Your task to perform on an android device: Open the phone app and click the voicemail tab. Image 0: 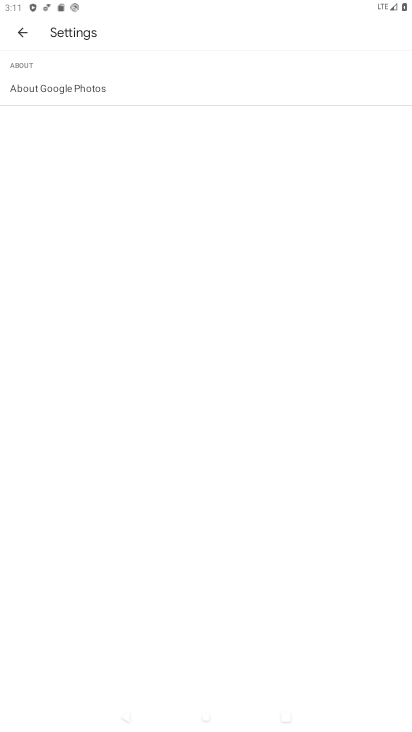
Step 0: press home button
Your task to perform on an android device: Open the phone app and click the voicemail tab. Image 1: 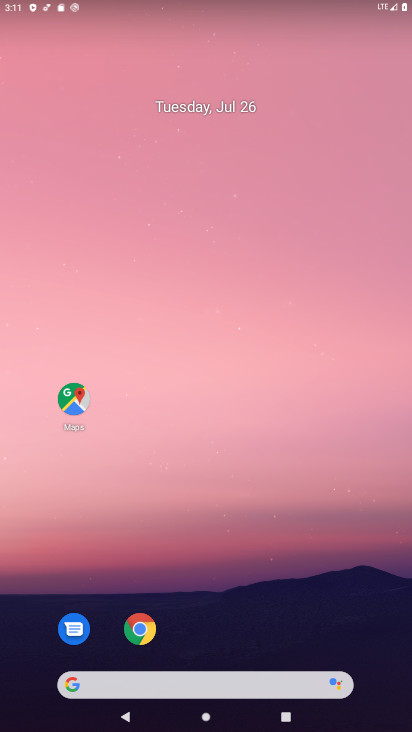
Step 1: drag from (225, 719) to (225, 240)
Your task to perform on an android device: Open the phone app and click the voicemail tab. Image 2: 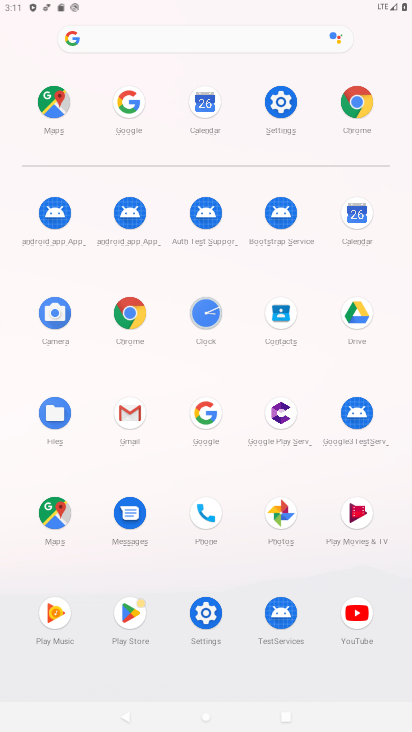
Step 2: click (203, 516)
Your task to perform on an android device: Open the phone app and click the voicemail tab. Image 3: 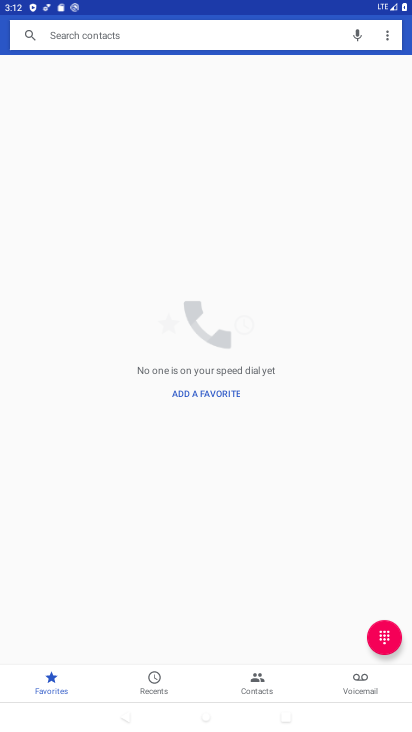
Step 3: click (352, 685)
Your task to perform on an android device: Open the phone app and click the voicemail tab. Image 4: 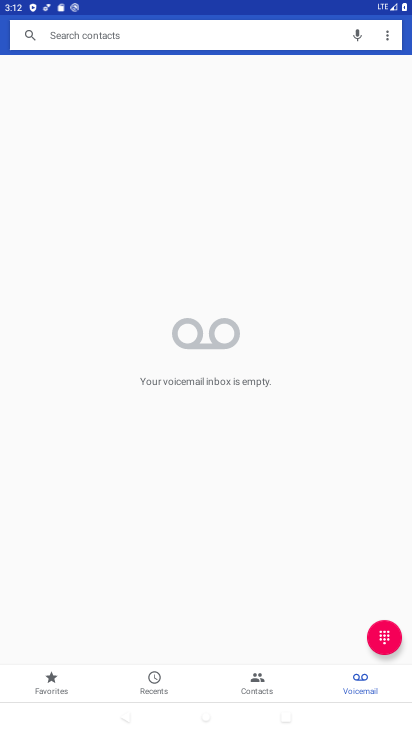
Step 4: task complete